Your task to perform on an android device: Show me the alarms in the clock app Image 0: 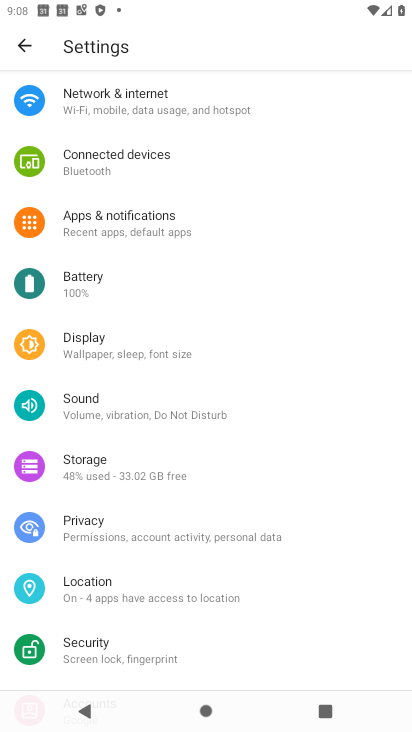
Step 0: press home button
Your task to perform on an android device: Show me the alarms in the clock app Image 1: 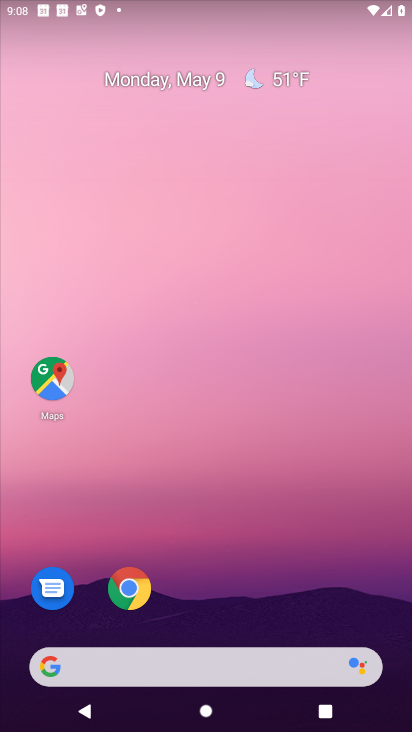
Step 1: drag from (227, 571) to (175, 5)
Your task to perform on an android device: Show me the alarms in the clock app Image 2: 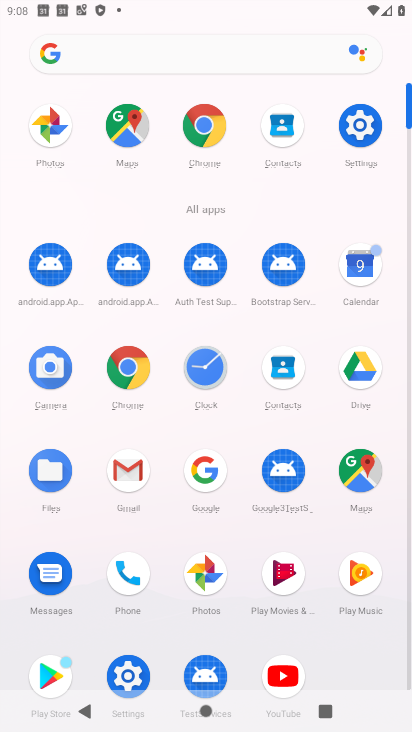
Step 2: click (213, 368)
Your task to perform on an android device: Show me the alarms in the clock app Image 3: 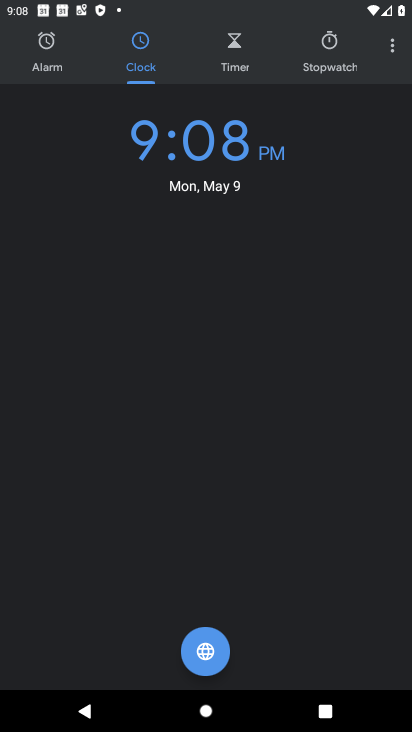
Step 3: click (43, 51)
Your task to perform on an android device: Show me the alarms in the clock app Image 4: 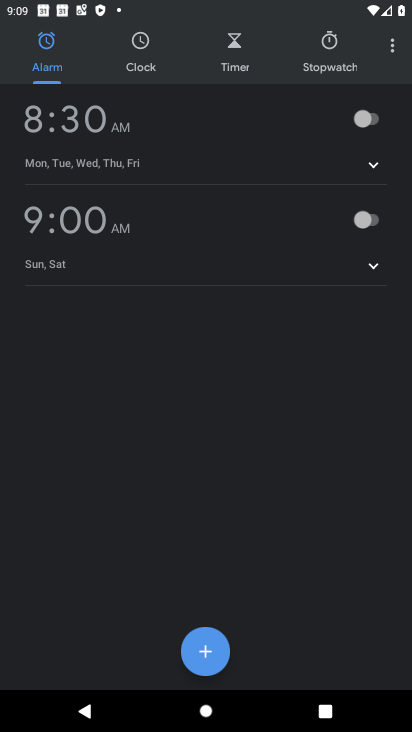
Step 4: task complete